Your task to perform on an android device: turn off smart reply in the gmail app Image 0: 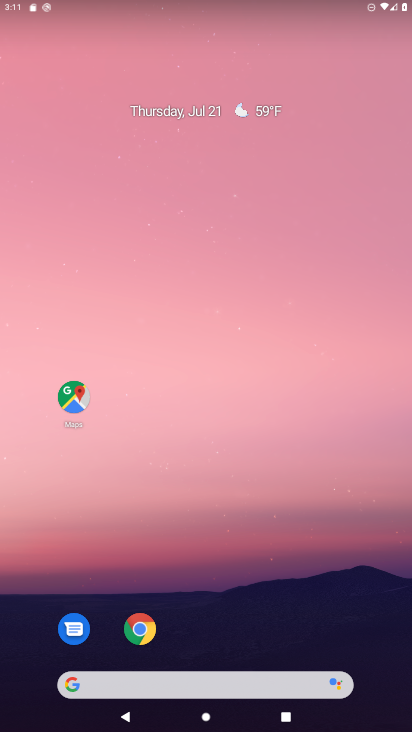
Step 0: drag from (238, 723) to (270, 182)
Your task to perform on an android device: turn off smart reply in the gmail app Image 1: 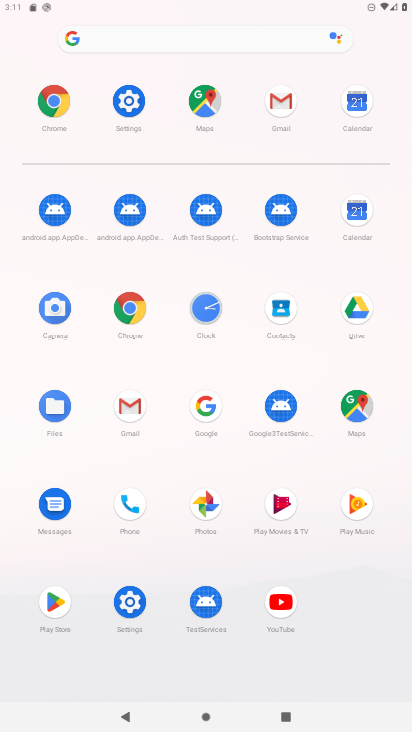
Step 1: click (280, 111)
Your task to perform on an android device: turn off smart reply in the gmail app Image 2: 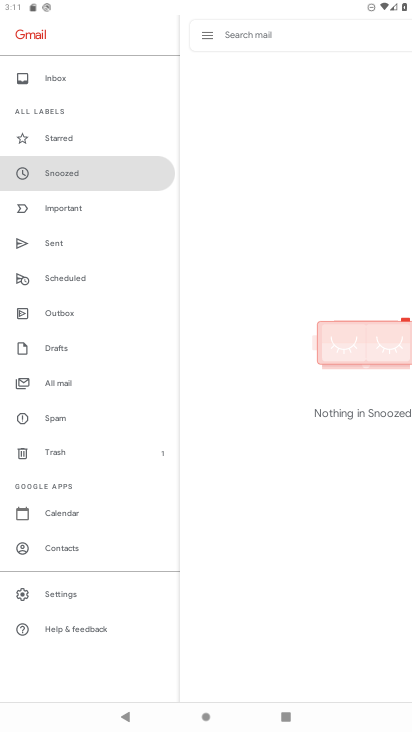
Step 2: click (58, 592)
Your task to perform on an android device: turn off smart reply in the gmail app Image 3: 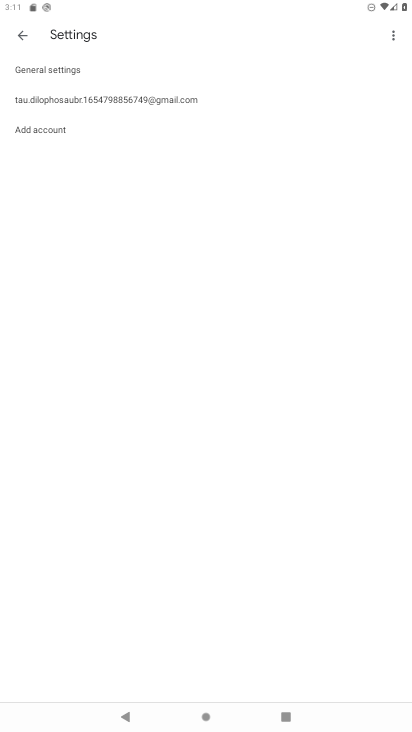
Step 3: click (116, 100)
Your task to perform on an android device: turn off smart reply in the gmail app Image 4: 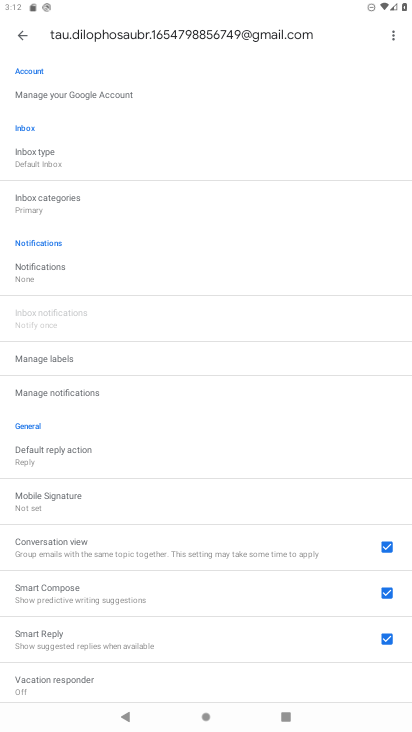
Step 4: click (386, 638)
Your task to perform on an android device: turn off smart reply in the gmail app Image 5: 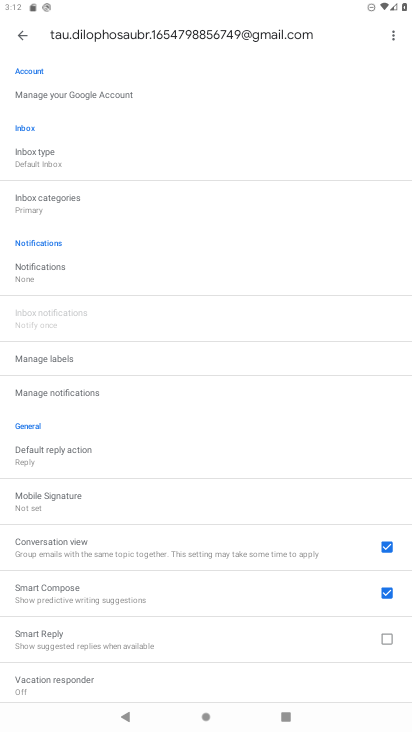
Step 5: task complete